Your task to perform on an android device: What's on my calendar today? Image 0: 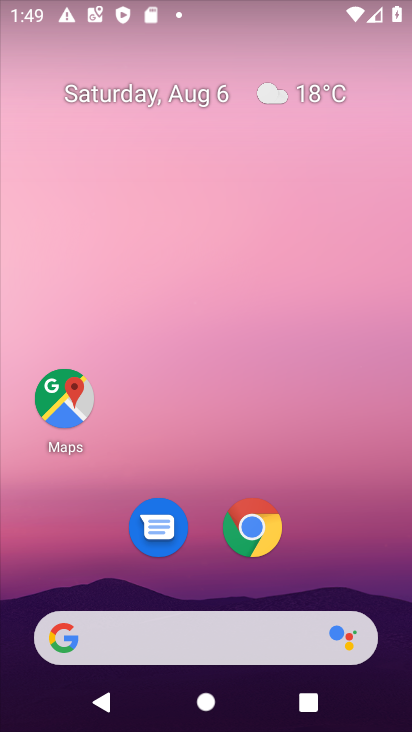
Step 0: drag from (213, 569) to (183, 216)
Your task to perform on an android device: What's on my calendar today? Image 1: 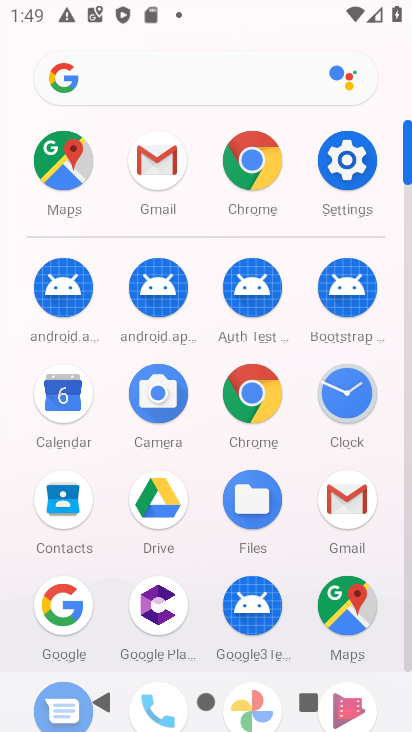
Step 1: click (71, 411)
Your task to perform on an android device: What's on my calendar today? Image 2: 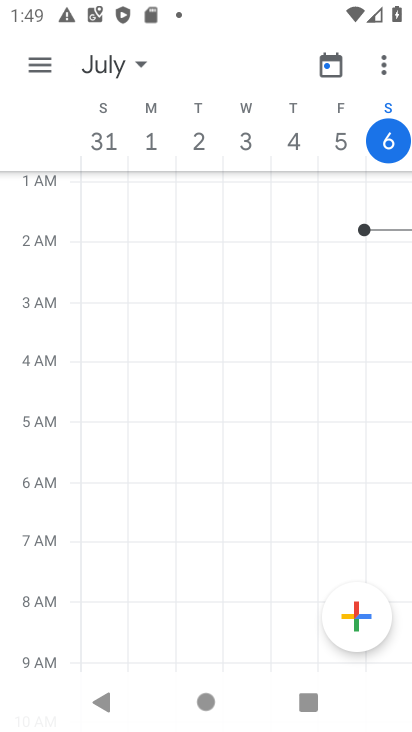
Step 2: click (393, 145)
Your task to perform on an android device: What's on my calendar today? Image 3: 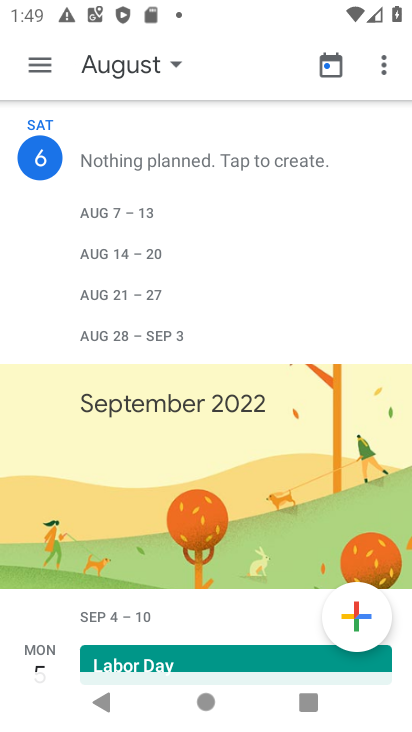
Step 3: task complete